Your task to perform on an android device: Go to Google maps Image 0: 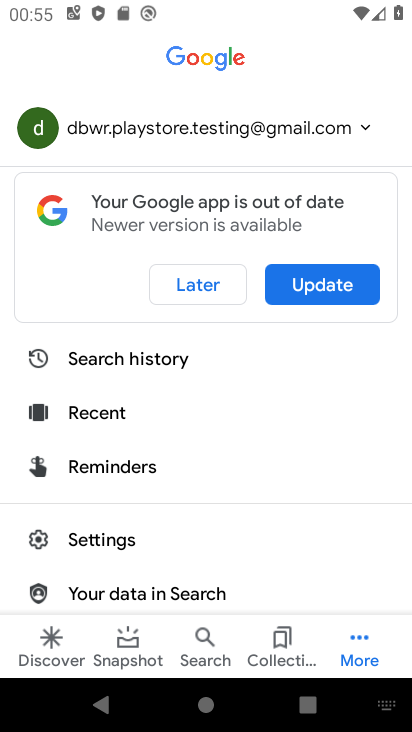
Step 0: press home button
Your task to perform on an android device: Go to Google maps Image 1: 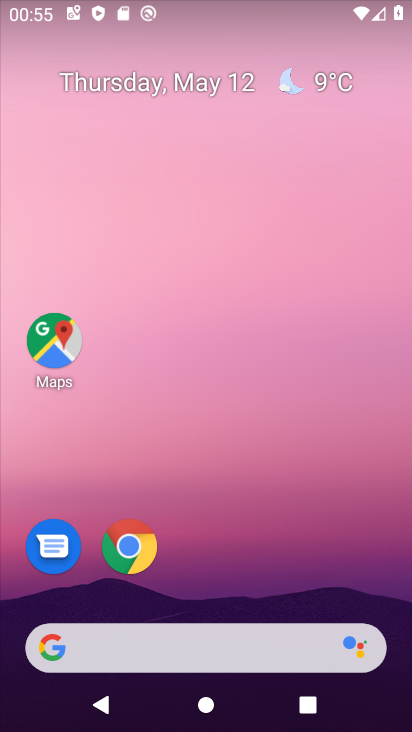
Step 1: click (51, 342)
Your task to perform on an android device: Go to Google maps Image 2: 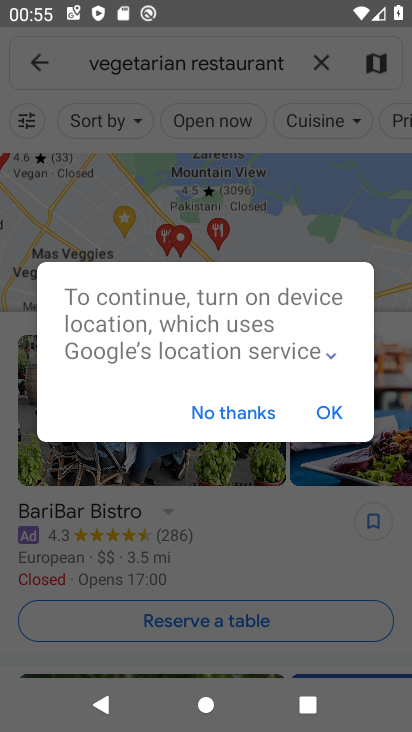
Step 2: task complete